Your task to perform on an android device: Find coffee shops on Maps Image 0: 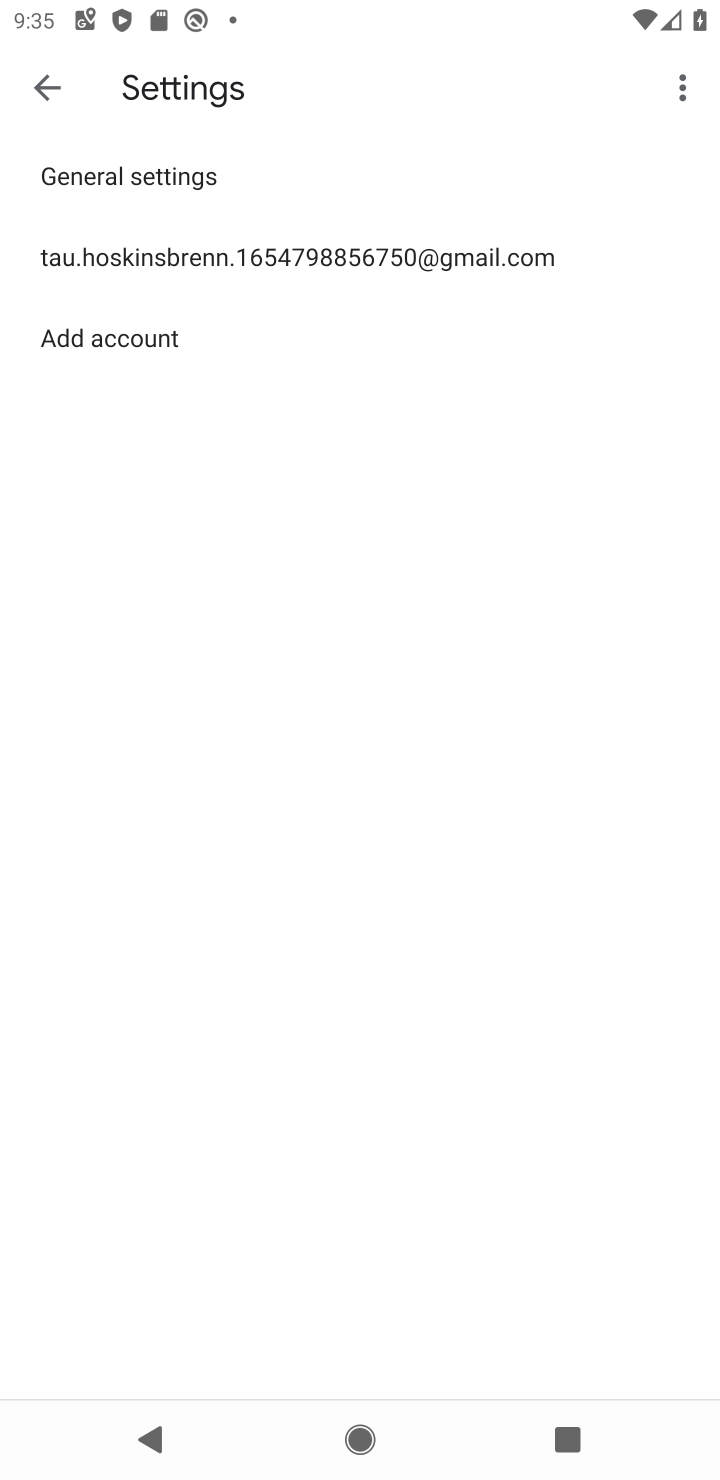
Step 0: press home button
Your task to perform on an android device: Find coffee shops on Maps Image 1: 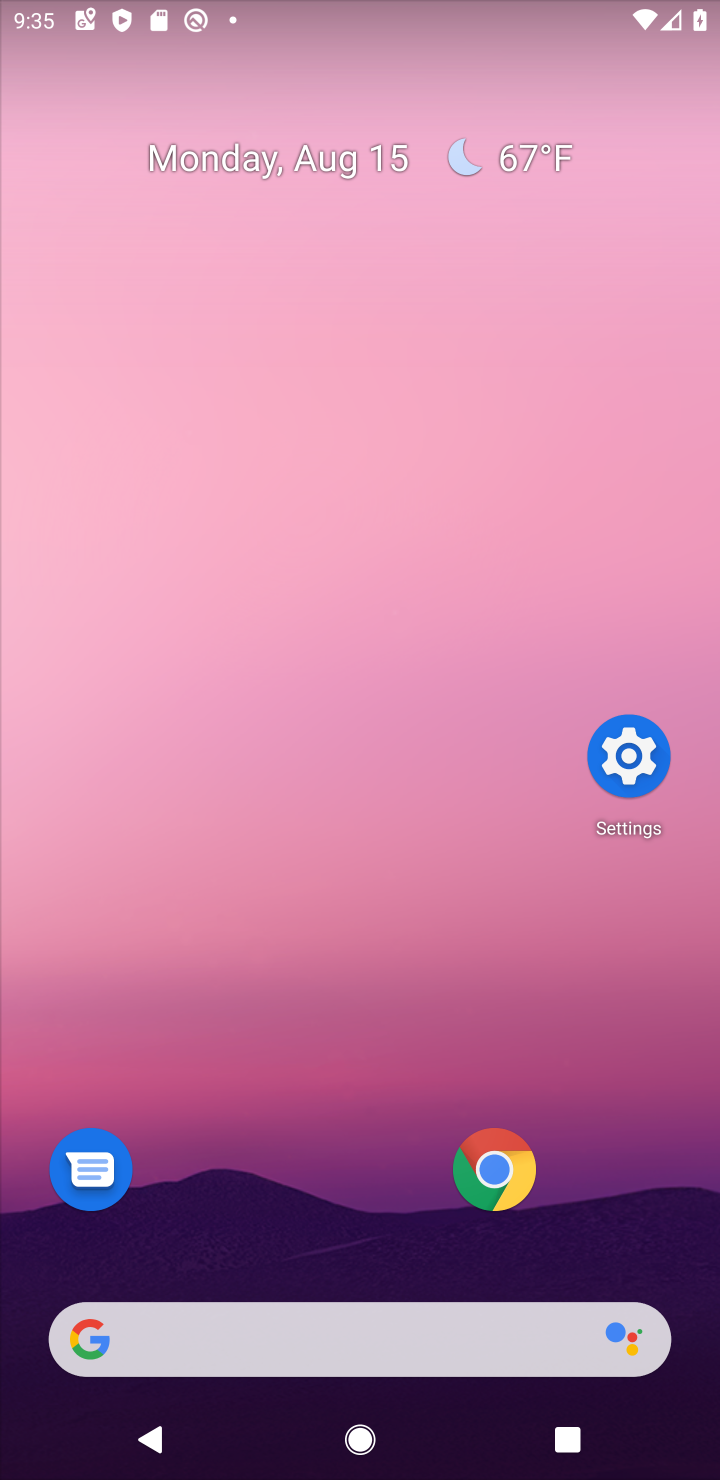
Step 1: drag from (347, 1262) to (610, 147)
Your task to perform on an android device: Find coffee shops on Maps Image 2: 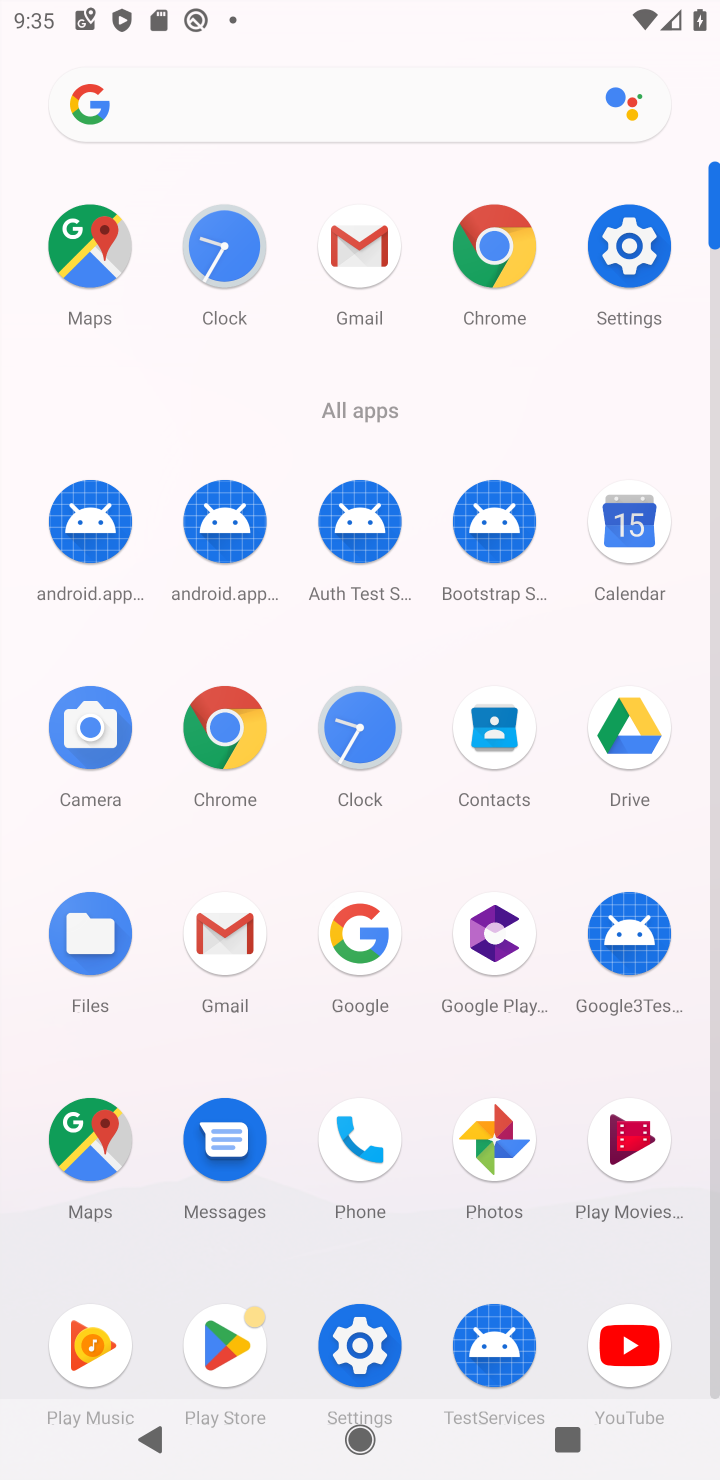
Step 2: drag from (84, 1149) to (227, 727)
Your task to perform on an android device: Find coffee shops on Maps Image 3: 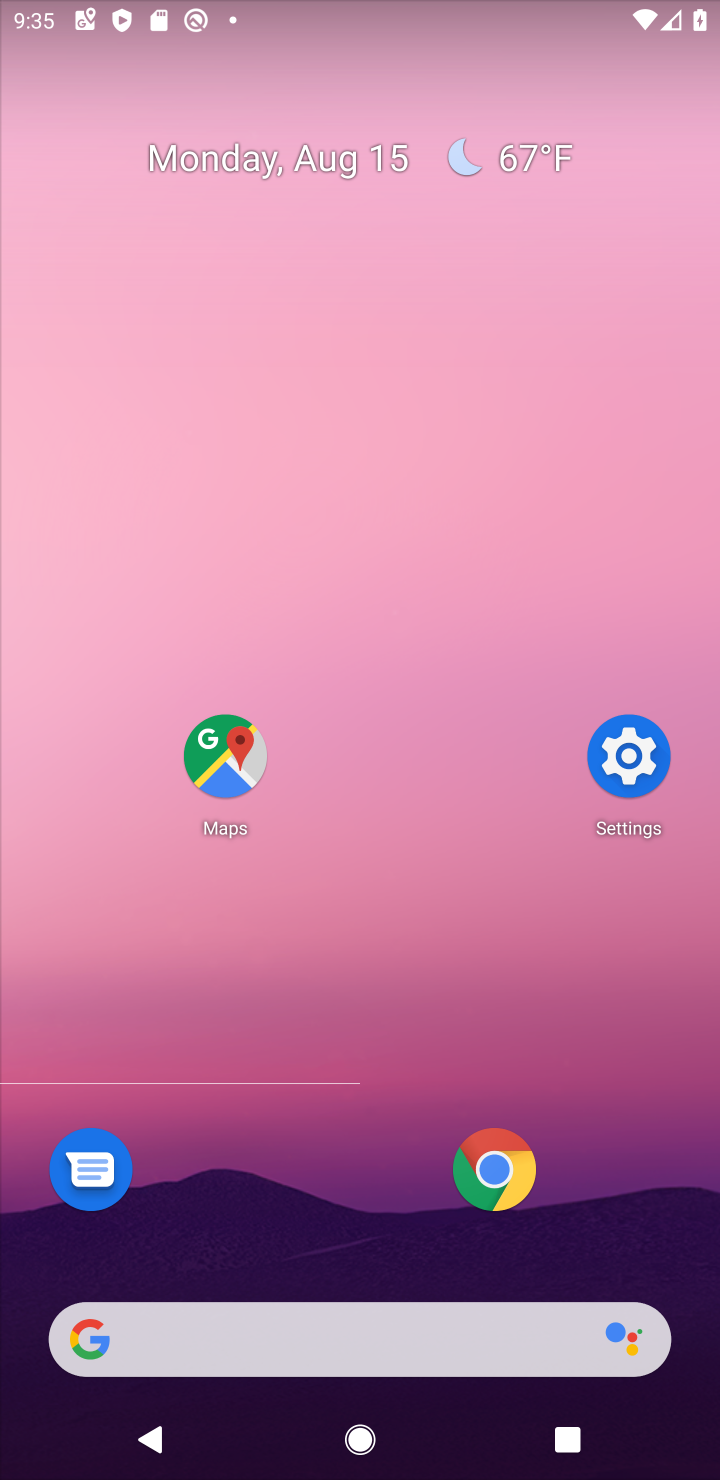
Step 3: click (216, 752)
Your task to perform on an android device: Find coffee shops on Maps Image 4: 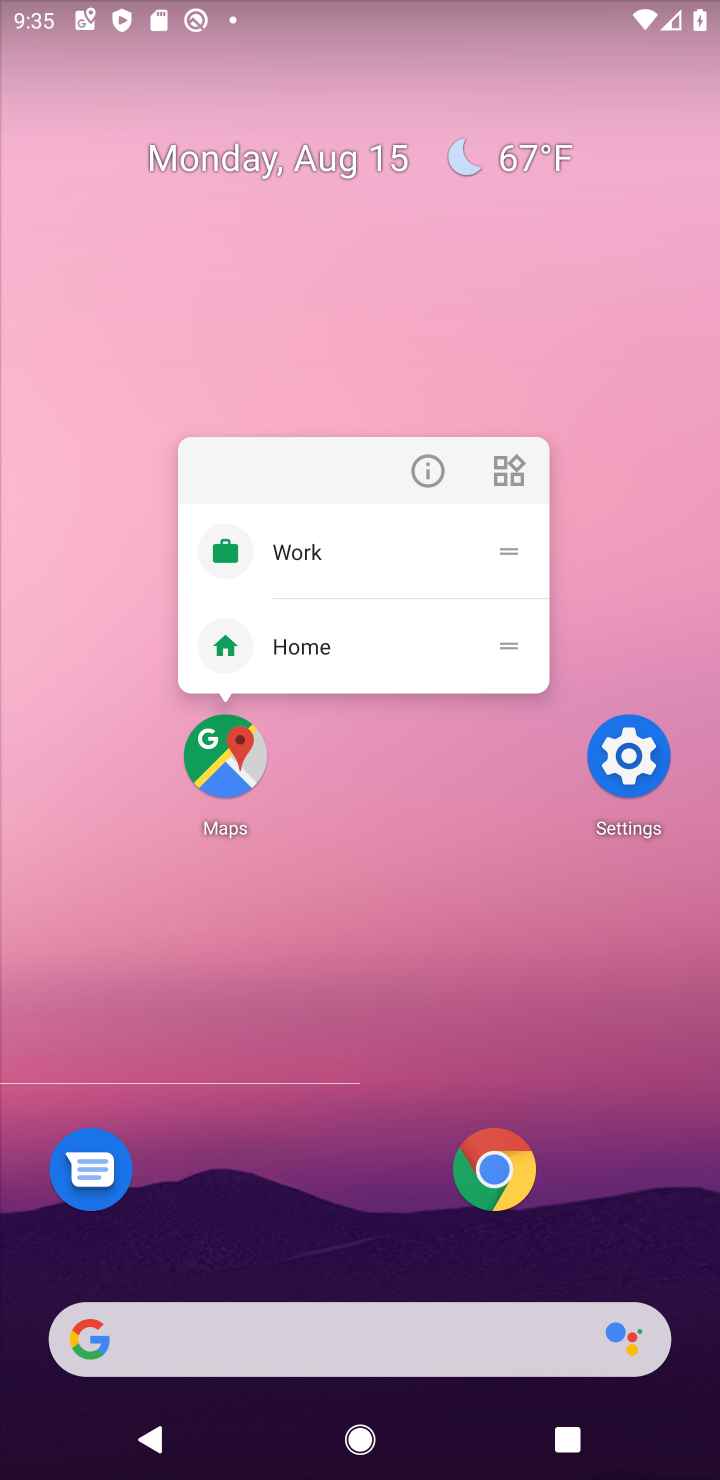
Step 4: click (216, 757)
Your task to perform on an android device: Find coffee shops on Maps Image 5: 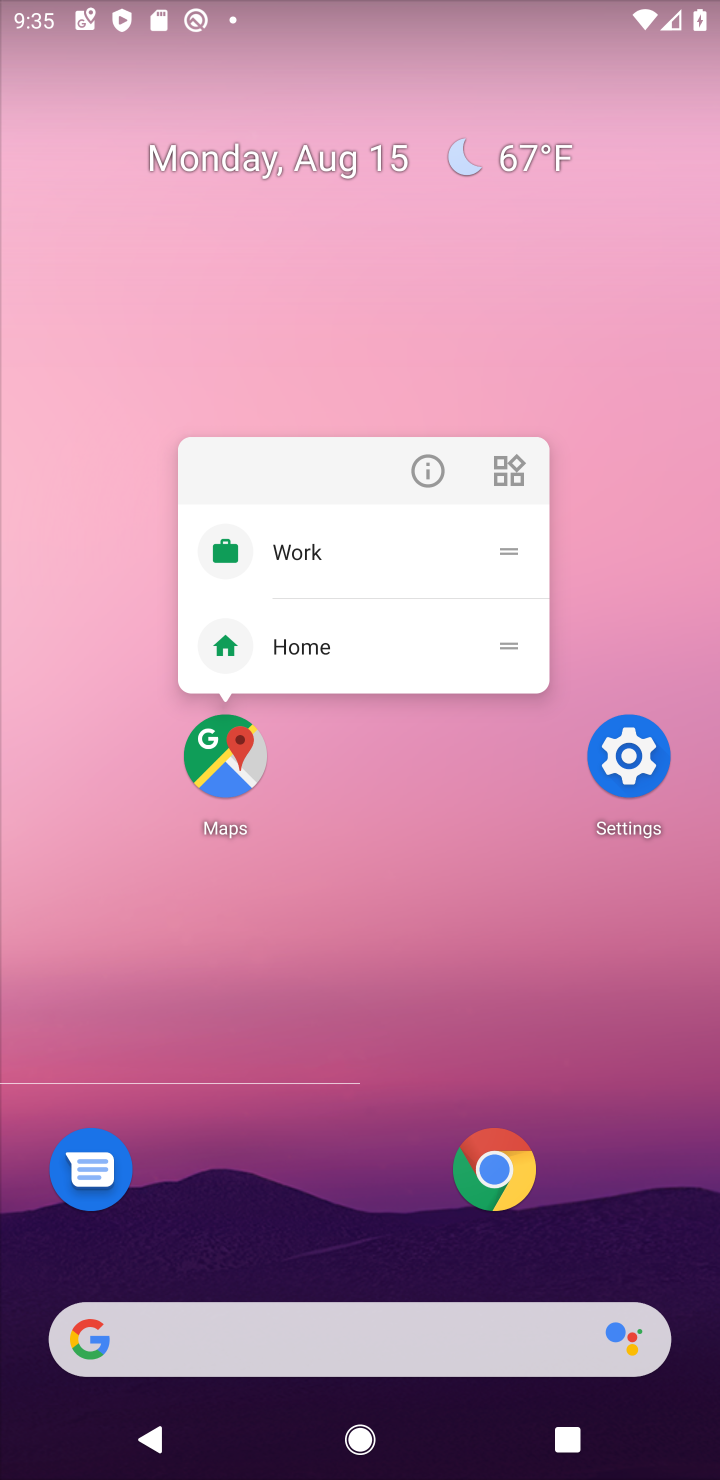
Step 5: click (225, 758)
Your task to perform on an android device: Find coffee shops on Maps Image 6: 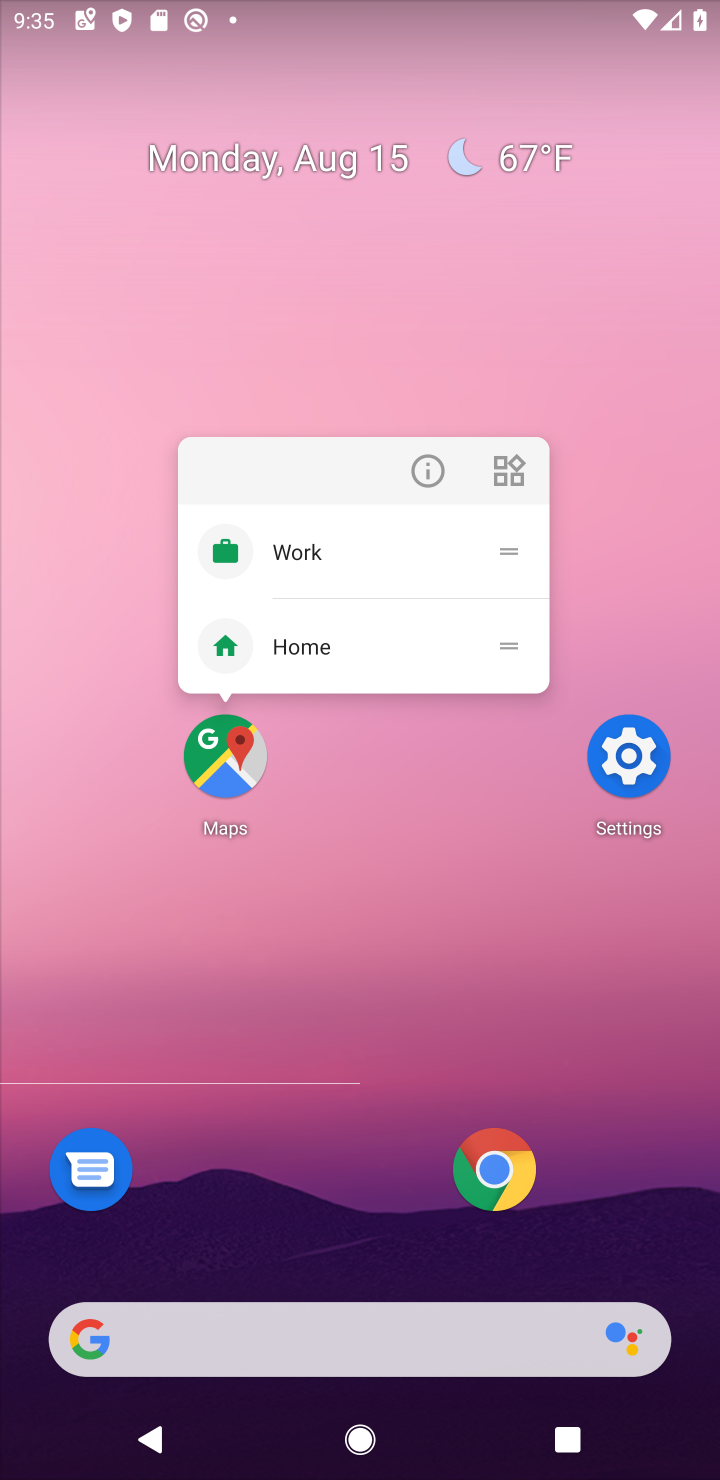
Step 6: click (225, 758)
Your task to perform on an android device: Find coffee shops on Maps Image 7: 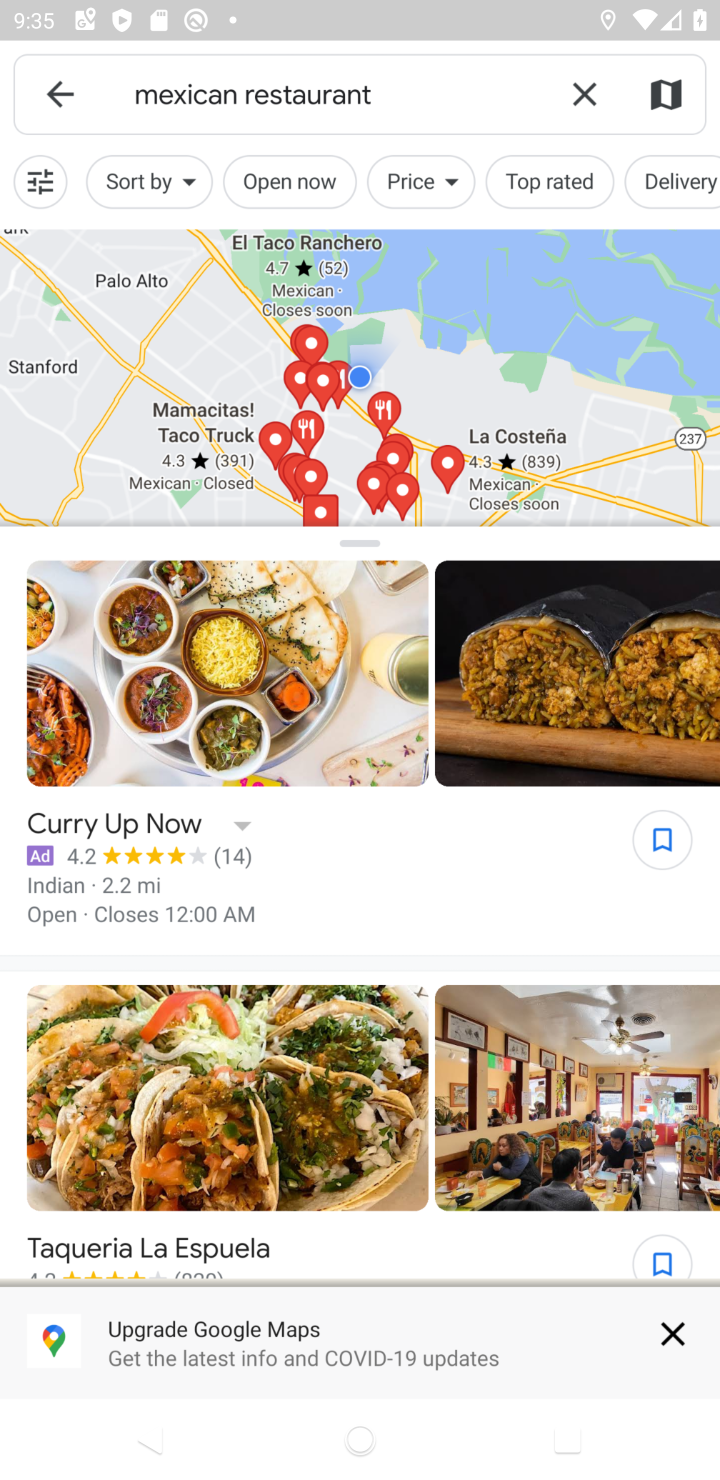
Step 7: click (585, 92)
Your task to perform on an android device: Find coffee shops on Maps Image 8: 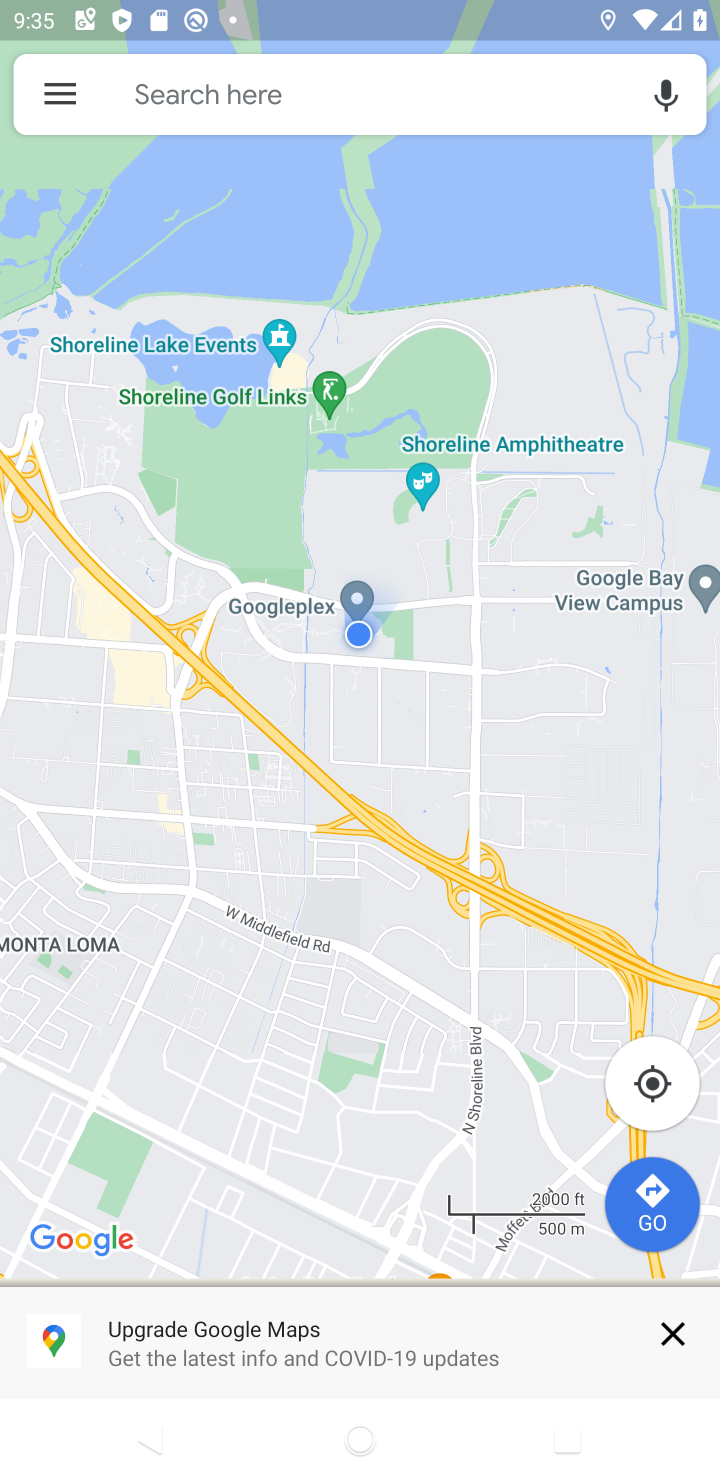
Step 8: click (256, 84)
Your task to perform on an android device: Find coffee shops on Maps Image 9: 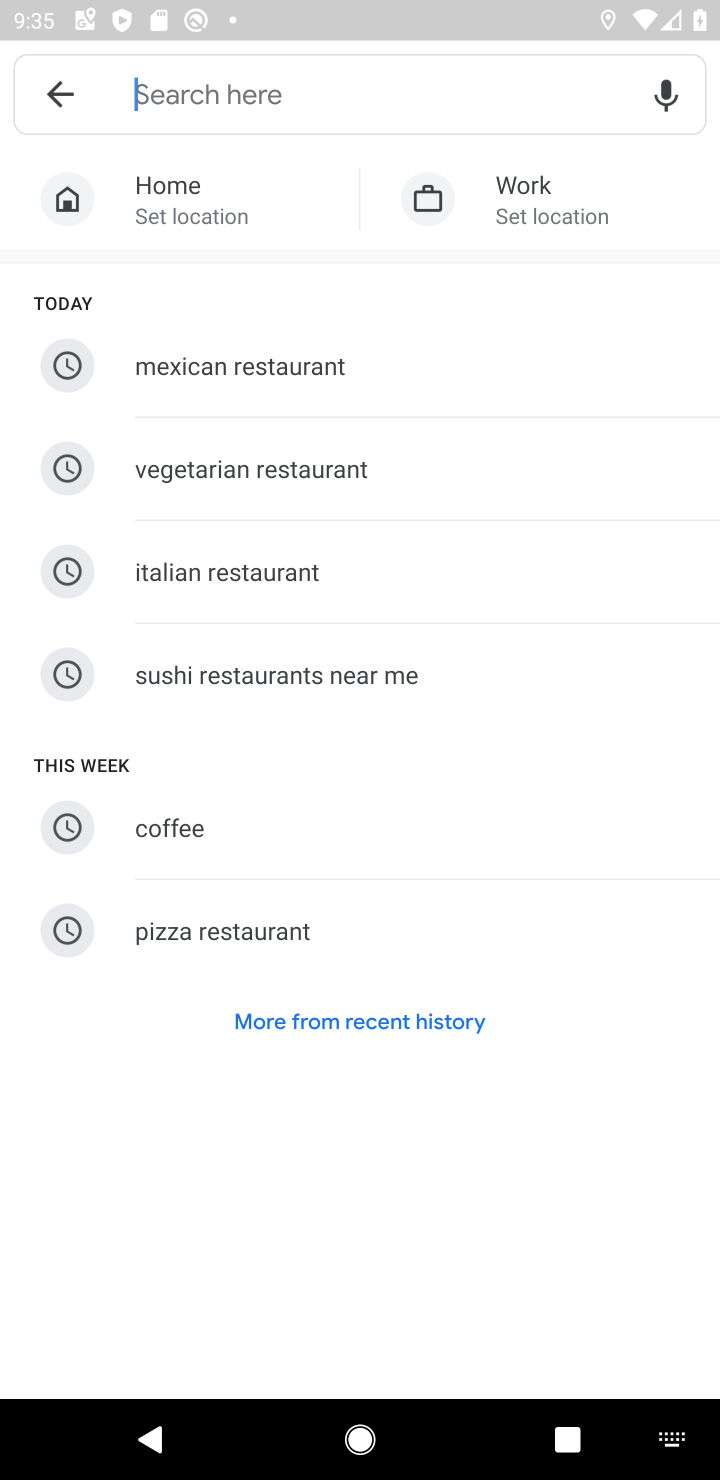
Step 9: click (182, 814)
Your task to perform on an android device: Find coffee shops on Maps Image 10: 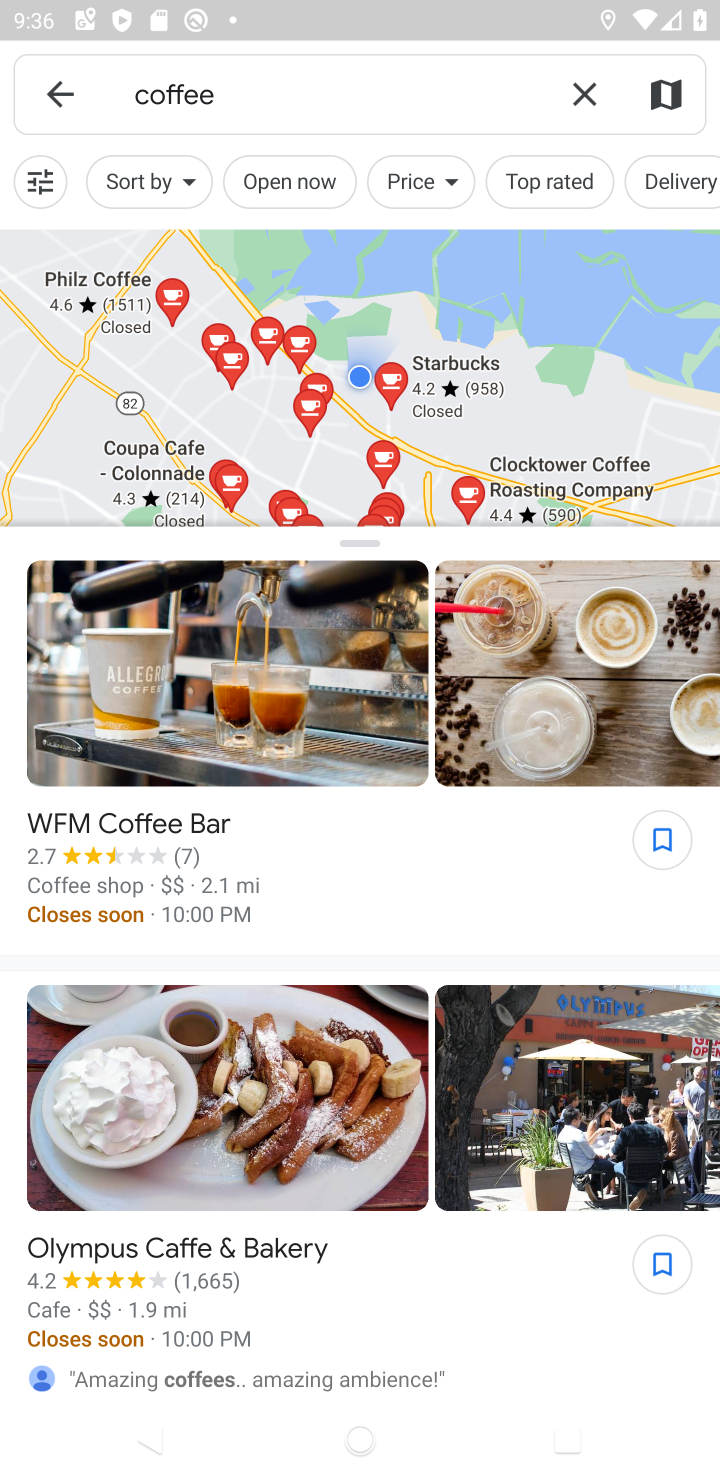
Step 10: task complete